Your task to perform on an android device: open chrome and create a bookmark for the current page Image 0: 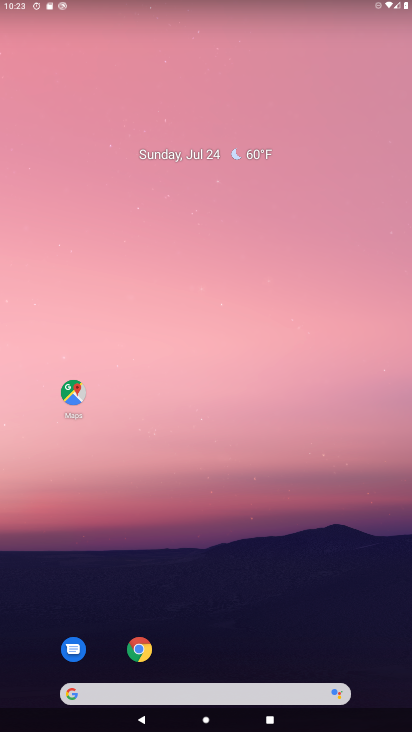
Step 0: drag from (318, 560) to (277, 8)
Your task to perform on an android device: open chrome and create a bookmark for the current page Image 1: 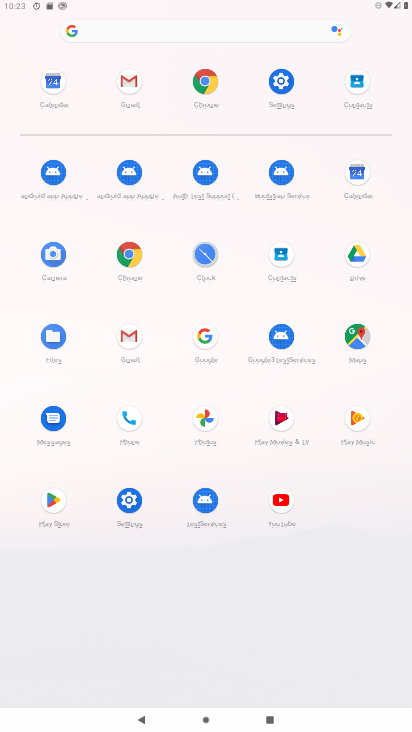
Step 1: click (207, 76)
Your task to perform on an android device: open chrome and create a bookmark for the current page Image 2: 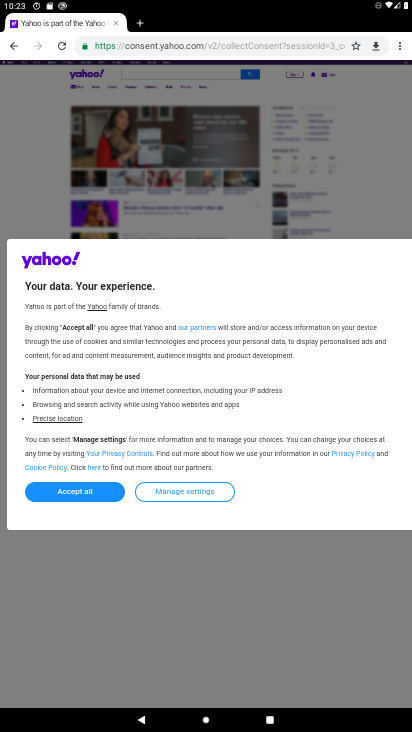
Step 2: click (356, 40)
Your task to perform on an android device: open chrome and create a bookmark for the current page Image 3: 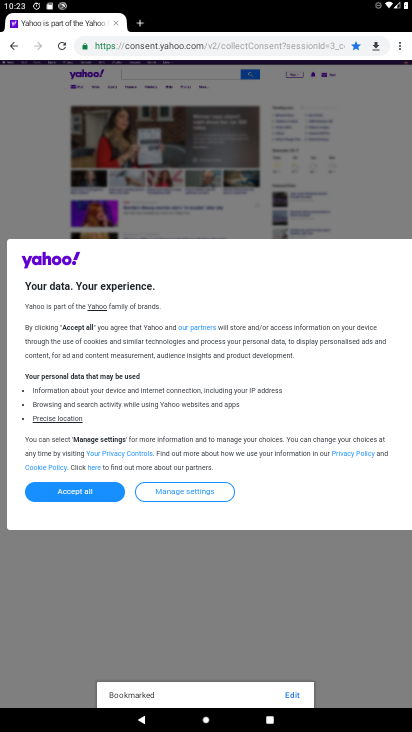
Step 3: task complete